Your task to perform on an android device: change the clock display to analog Image 0: 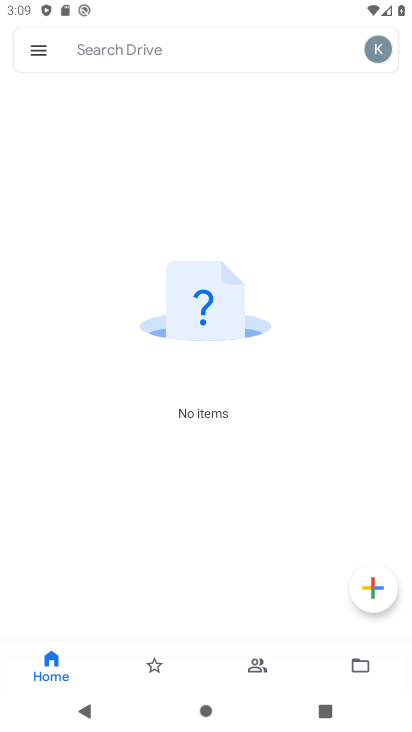
Step 0: press back button
Your task to perform on an android device: change the clock display to analog Image 1: 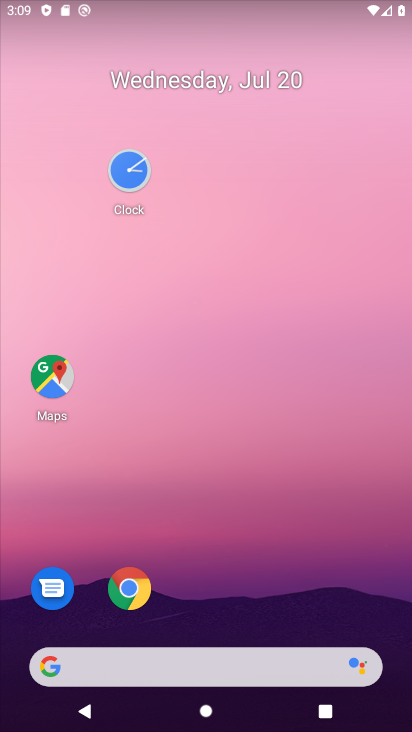
Step 1: click (135, 178)
Your task to perform on an android device: change the clock display to analog Image 2: 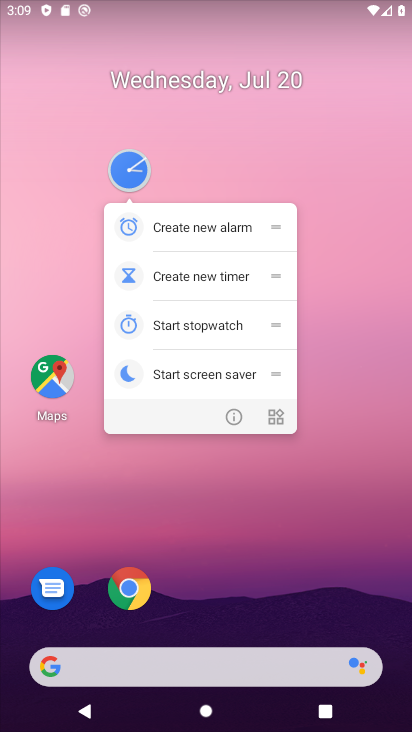
Step 2: click (135, 178)
Your task to perform on an android device: change the clock display to analog Image 3: 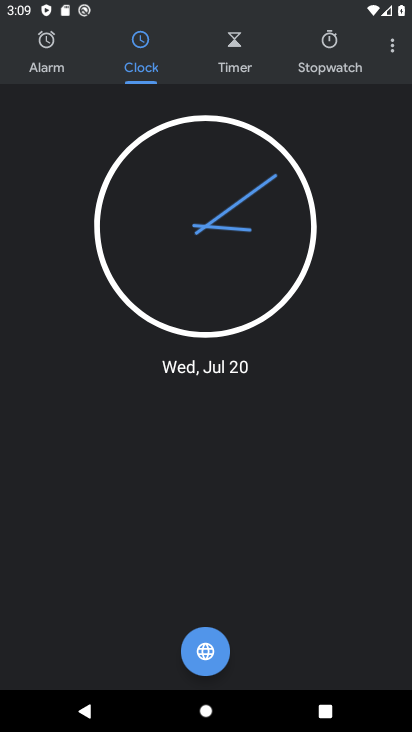
Step 3: click (386, 47)
Your task to perform on an android device: change the clock display to analog Image 4: 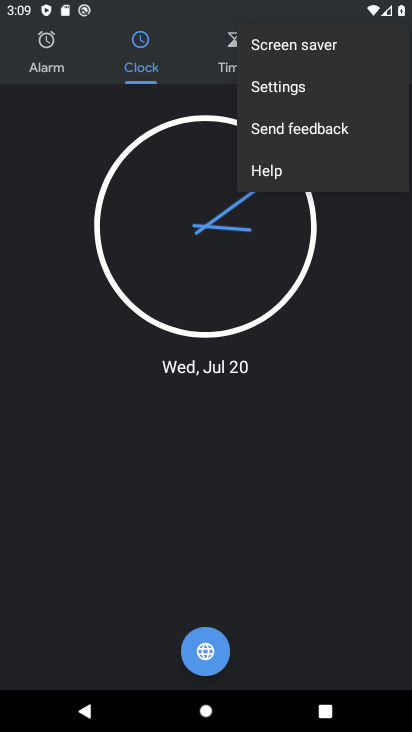
Step 4: click (272, 92)
Your task to perform on an android device: change the clock display to analog Image 5: 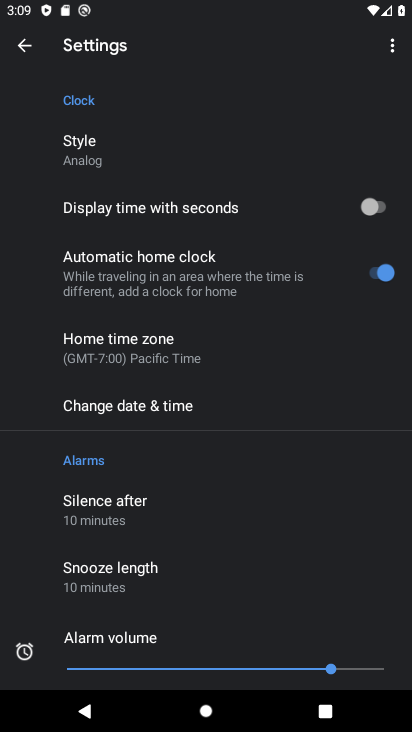
Step 5: task complete